Your task to perform on an android device: open a bookmark in the chrome app Image 0: 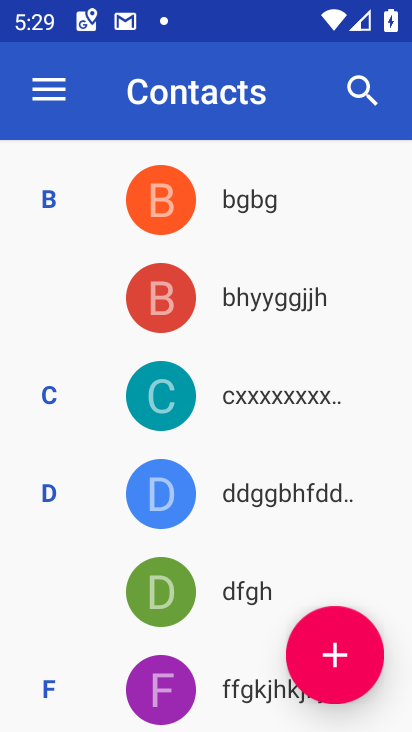
Step 0: press home button
Your task to perform on an android device: open a bookmark in the chrome app Image 1: 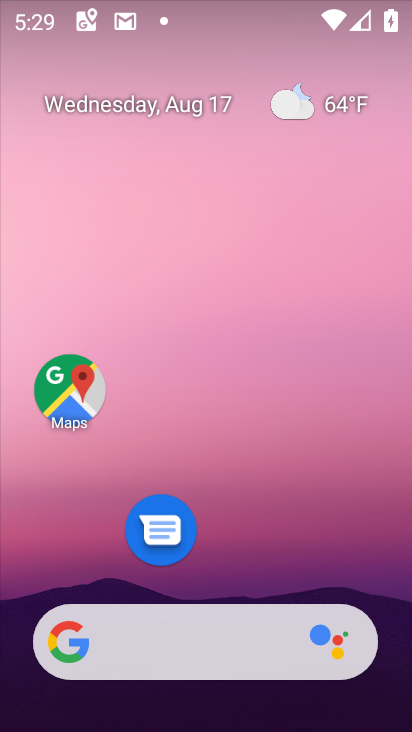
Step 1: drag from (198, 533) to (198, 158)
Your task to perform on an android device: open a bookmark in the chrome app Image 2: 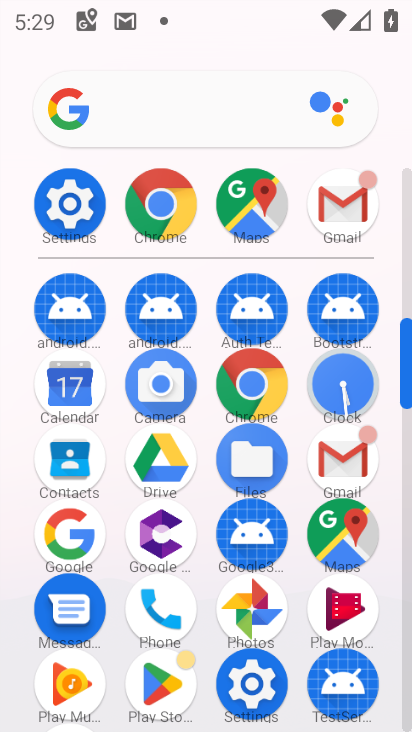
Step 2: click (161, 200)
Your task to perform on an android device: open a bookmark in the chrome app Image 3: 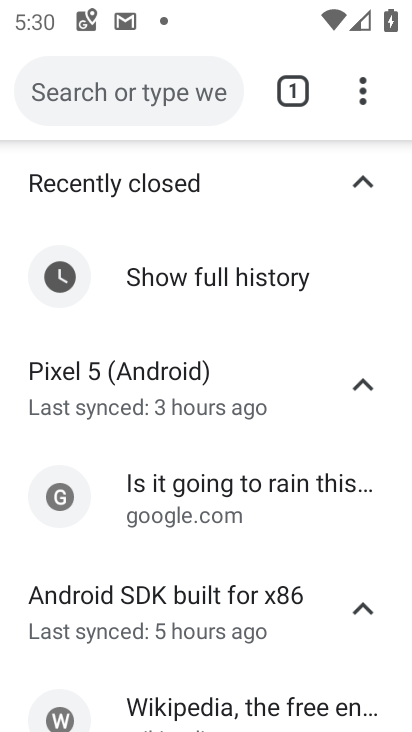
Step 3: click (361, 81)
Your task to perform on an android device: open a bookmark in the chrome app Image 4: 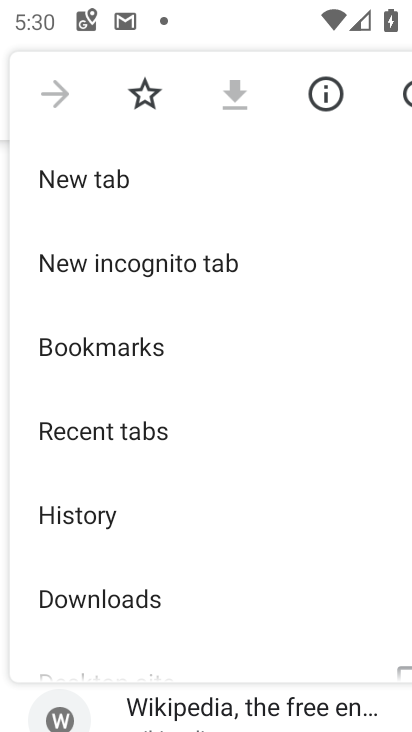
Step 4: click (107, 345)
Your task to perform on an android device: open a bookmark in the chrome app Image 5: 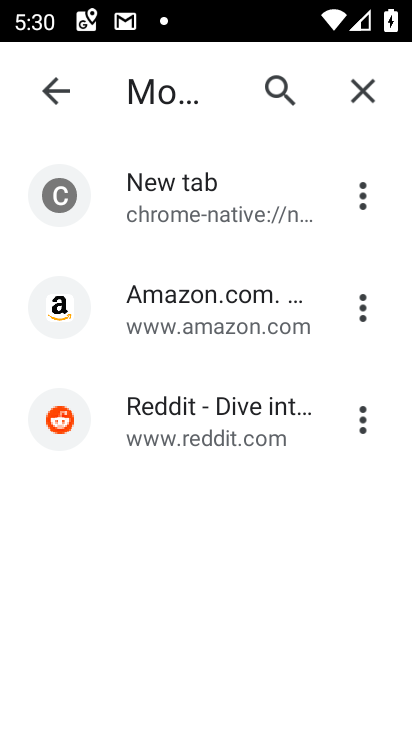
Step 5: click (176, 297)
Your task to perform on an android device: open a bookmark in the chrome app Image 6: 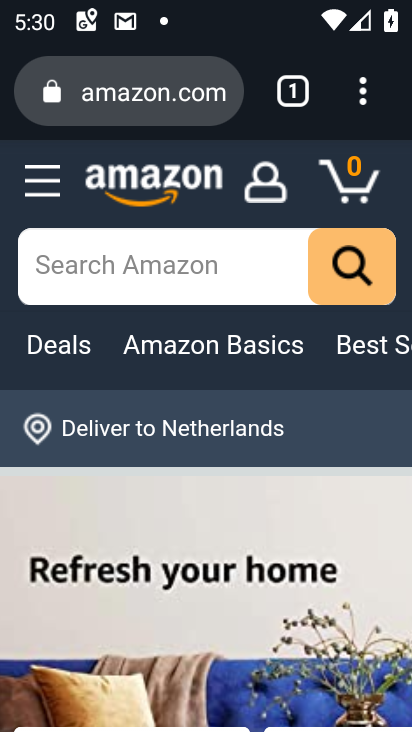
Step 6: task complete